Your task to perform on an android device: open chrome and create a bookmark for the current page Image 0: 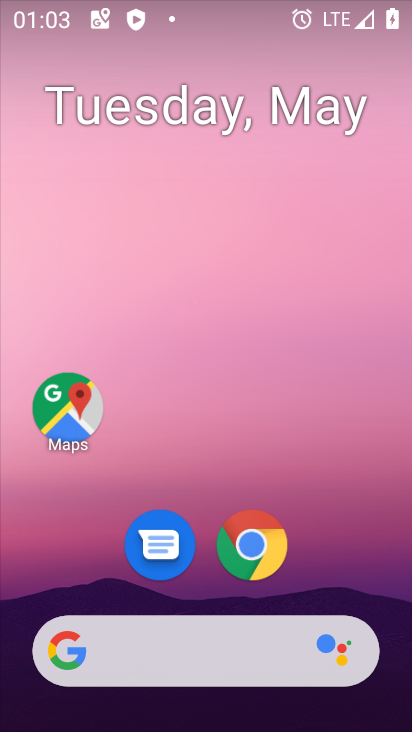
Step 0: click (261, 548)
Your task to perform on an android device: open chrome and create a bookmark for the current page Image 1: 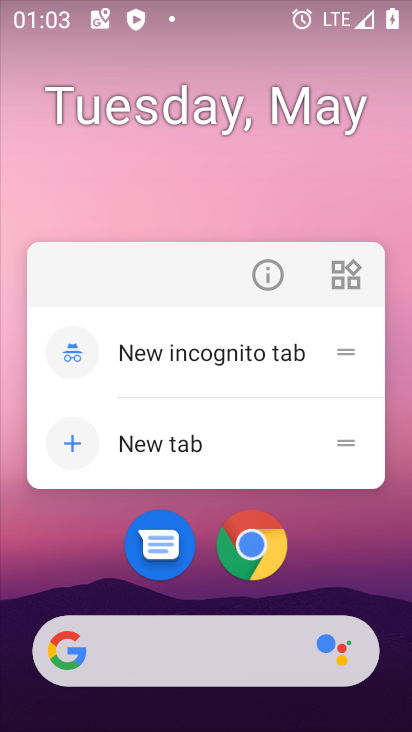
Step 1: click (262, 547)
Your task to perform on an android device: open chrome and create a bookmark for the current page Image 2: 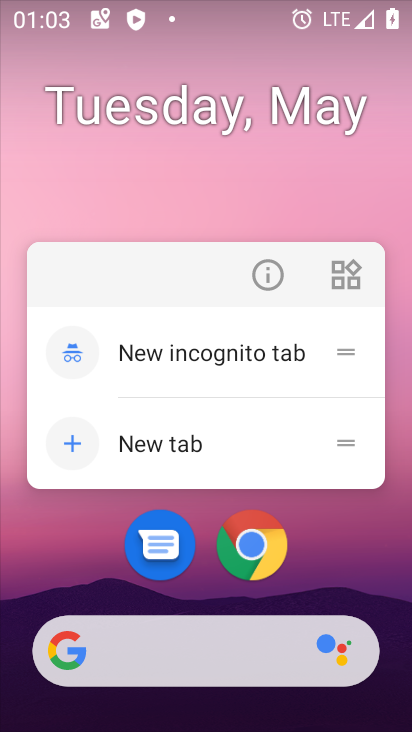
Step 2: click (262, 544)
Your task to perform on an android device: open chrome and create a bookmark for the current page Image 3: 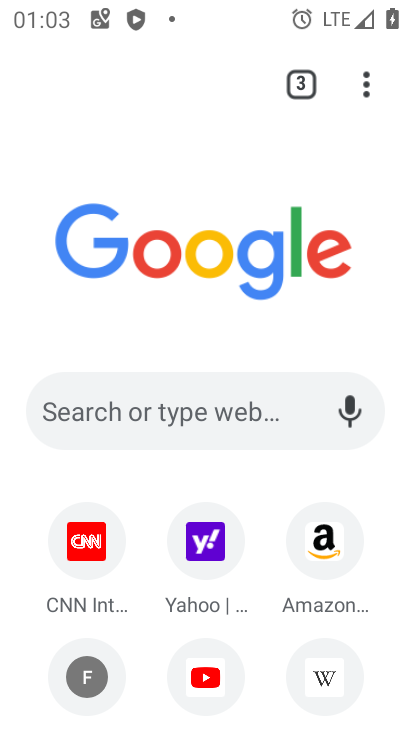
Step 3: click (358, 92)
Your task to perform on an android device: open chrome and create a bookmark for the current page Image 4: 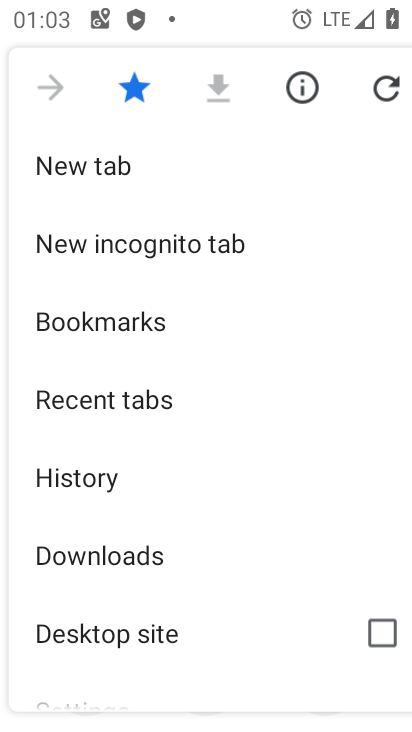
Step 4: task complete